Your task to perform on an android device: create a new album in the google photos Image 0: 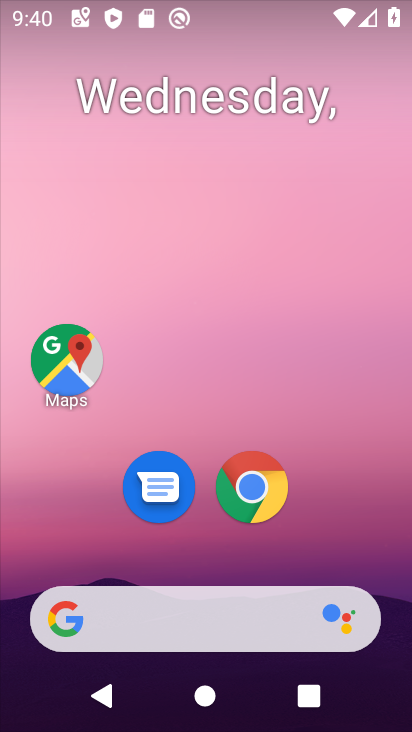
Step 0: drag from (228, 541) to (303, 57)
Your task to perform on an android device: create a new album in the google photos Image 1: 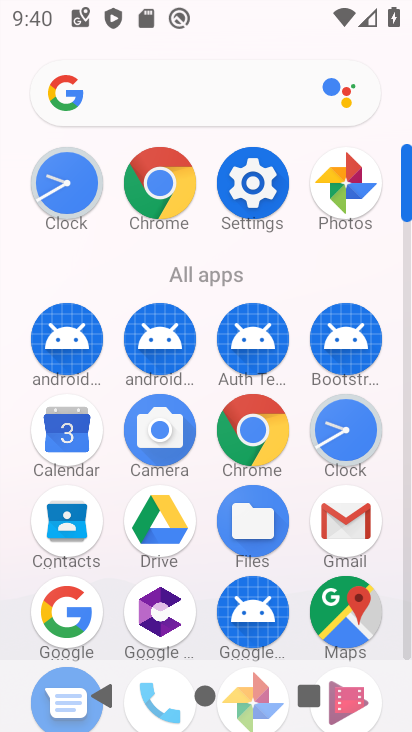
Step 1: drag from (207, 605) to (283, 104)
Your task to perform on an android device: create a new album in the google photos Image 2: 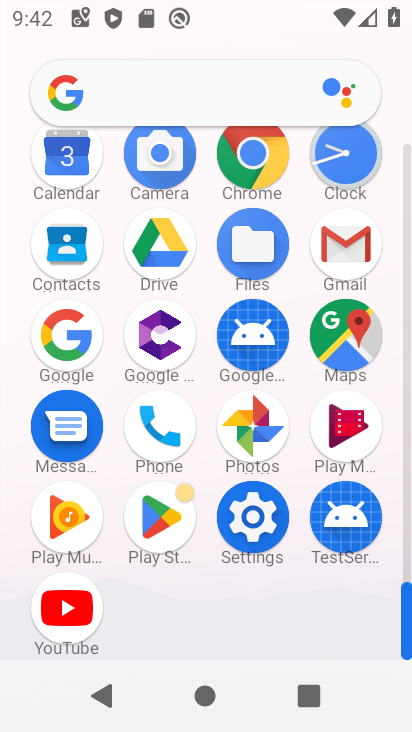
Step 2: click (266, 433)
Your task to perform on an android device: create a new album in the google photos Image 3: 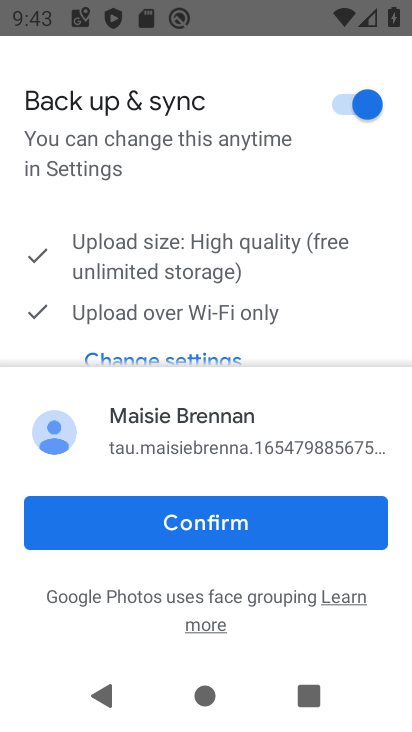
Step 3: click (193, 536)
Your task to perform on an android device: create a new album in the google photos Image 4: 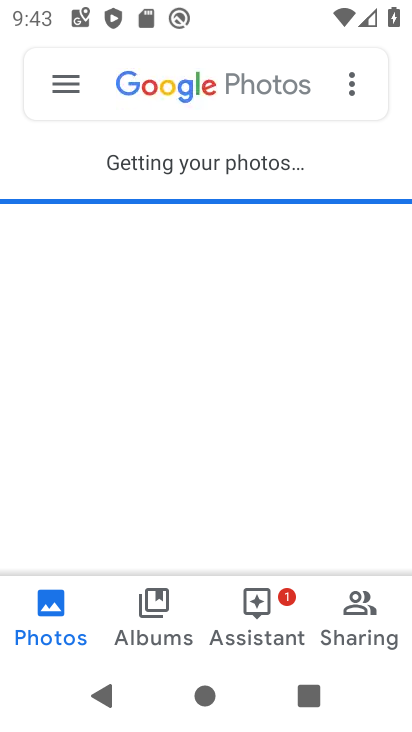
Step 4: click (146, 597)
Your task to perform on an android device: create a new album in the google photos Image 5: 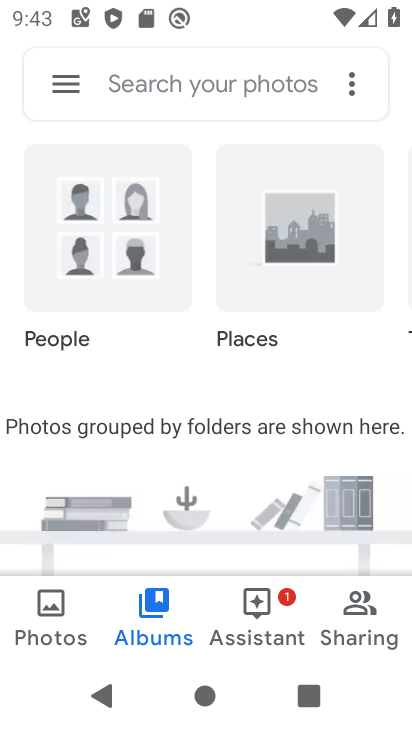
Step 5: drag from (201, 481) to (280, 118)
Your task to perform on an android device: create a new album in the google photos Image 6: 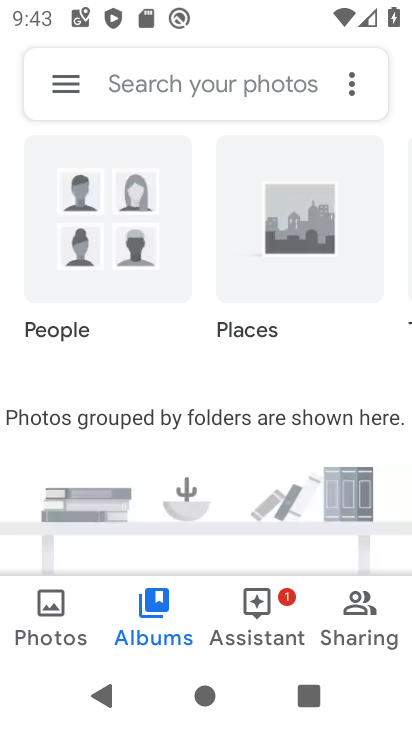
Step 6: click (360, 81)
Your task to perform on an android device: create a new album in the google photos Image 7: 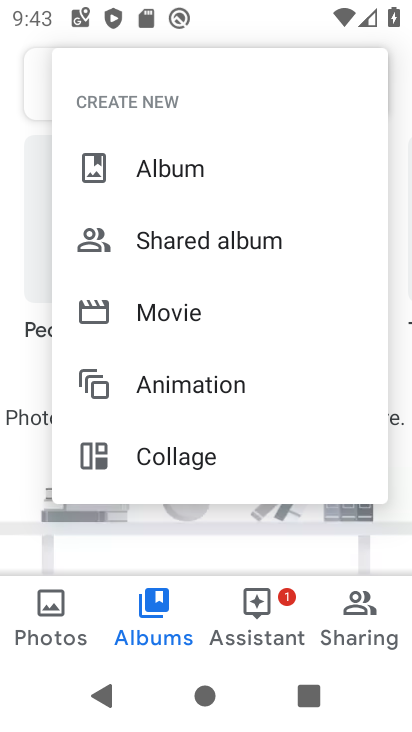
Step 7: click (145, 166)
Your task to perform on an android device: create a new album in the google photos Image 8: 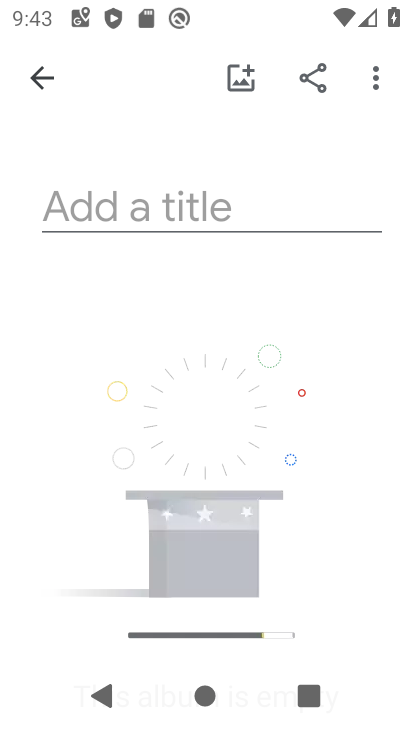
Step 8: click (72, 185)
Your task to perform on an android device: create a new album in the google photos Image 9: 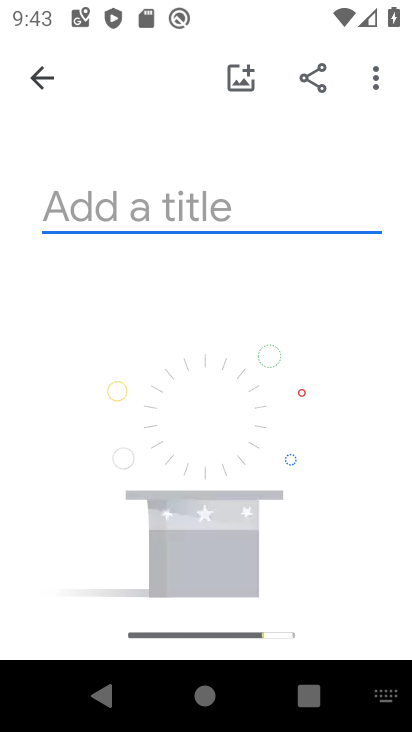
Step 9: type "vfv"
Your task to perform on an android device: create a new album in the google photos Image 10: 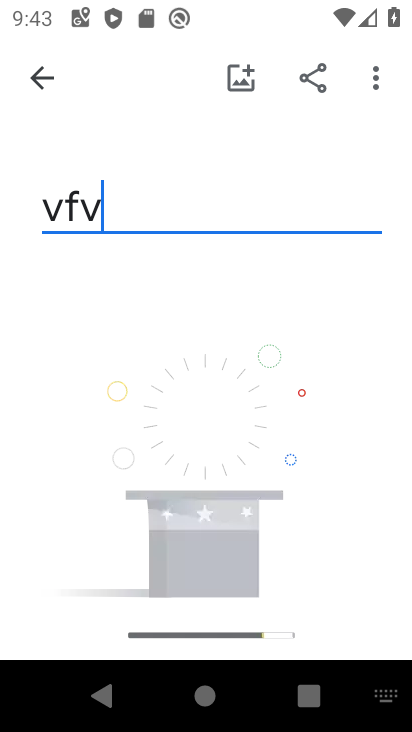
Step 10: task complete